Your task to perform on an android device: delete the emails in spam in the gmail app Image 0: 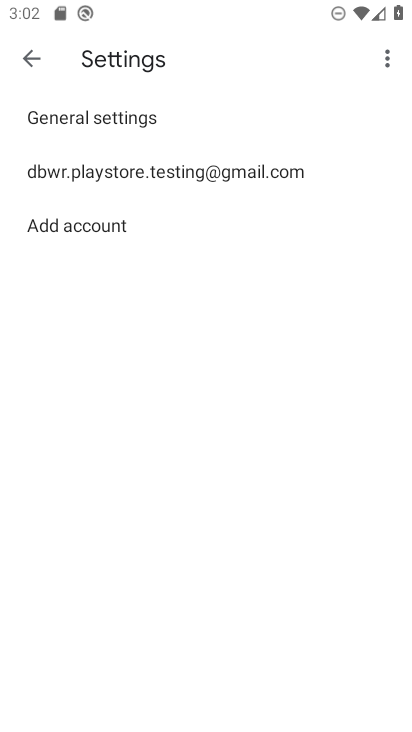
Step 0: click (45, 51)
Your task to perform on an android device: delete the emails in spam in the gmail app Image 1: 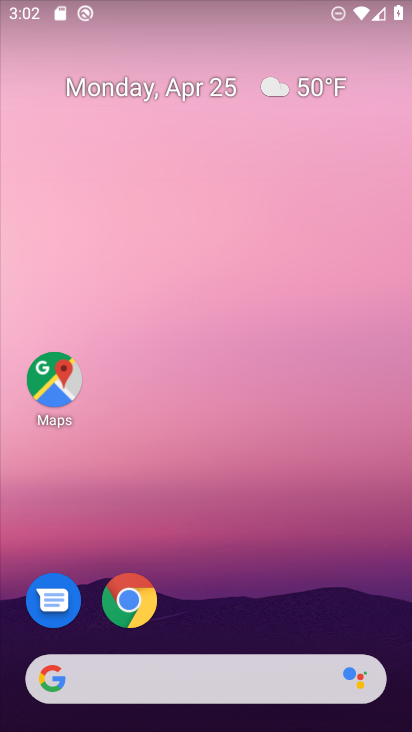
Step 1: drag from (179, 634) to (146, 19)
Your task to perform on an android device: delete the emails in spam in the gmail app Image 2: 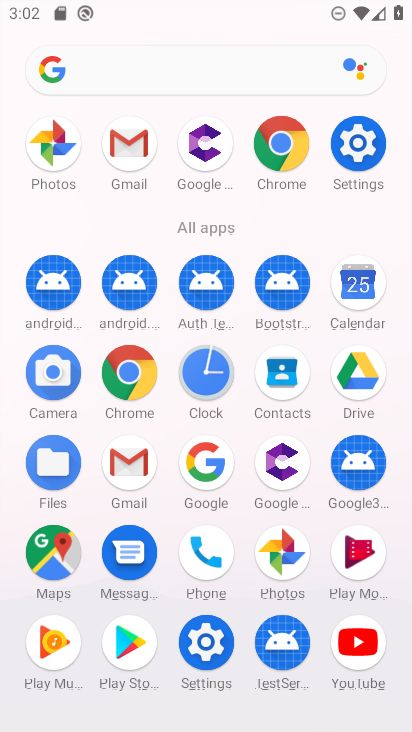
Step 2: click (134, 459)
Your task to perform on an android device: delete the emails in spam in the gmail app Image 3: 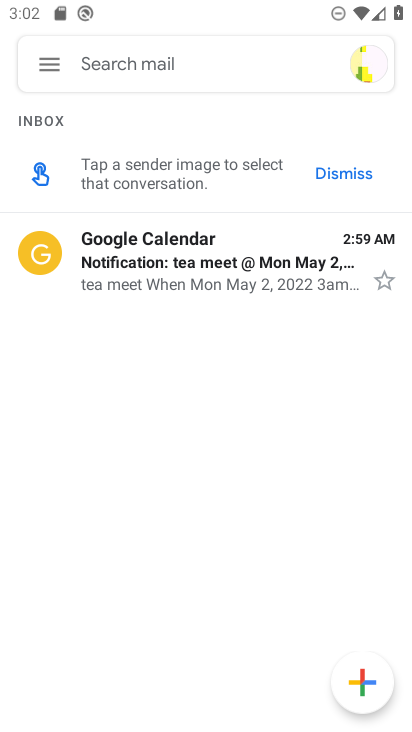
Step 3: click (39, 54)
Your task to perform on an android device: delete the emails in spam in the gmail app Image 4: 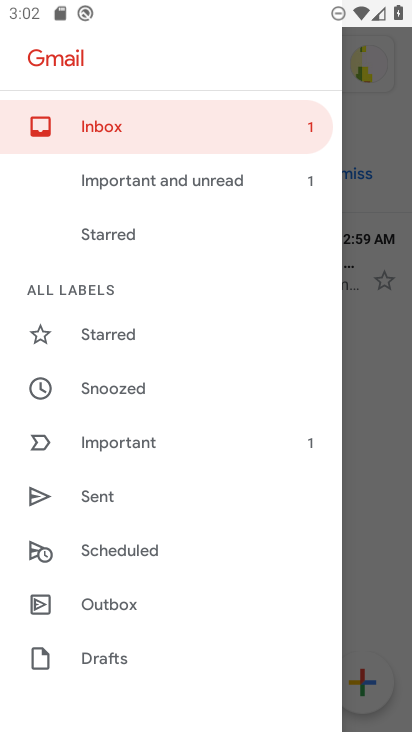
Step 4: drag from (138, 577) to (118, 265)
Your task to perform on an android device: delete the emails in spam in the gmail app Image 5: 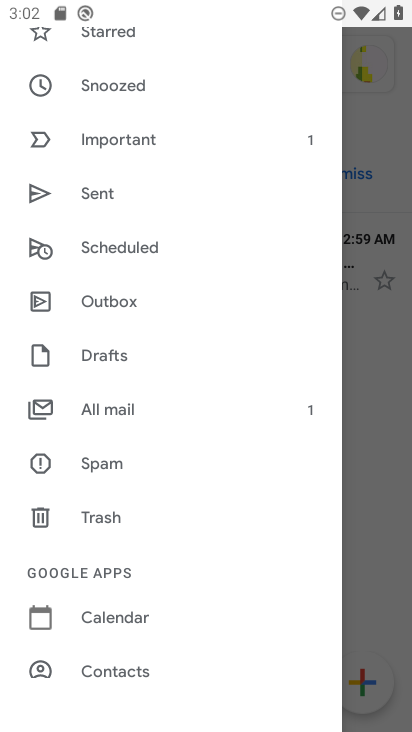
Step 5: click (111, 452)
Your task to perform on an android device: delete the emails in spam in the gmail app Image 6: 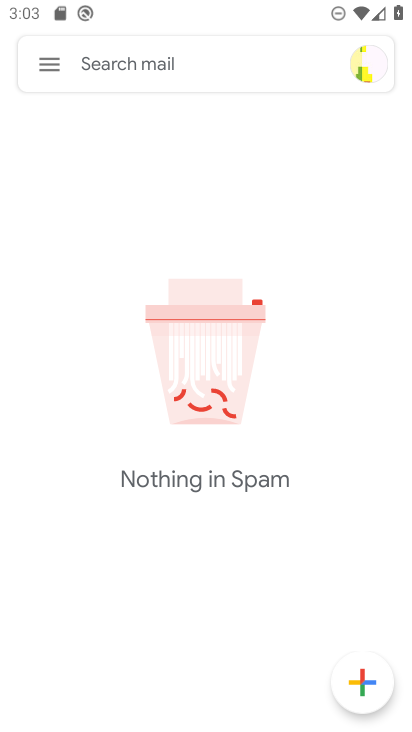
Step 6: task complete